Your task to perform on an android device: delete browsing data in the chrome app Image 0: 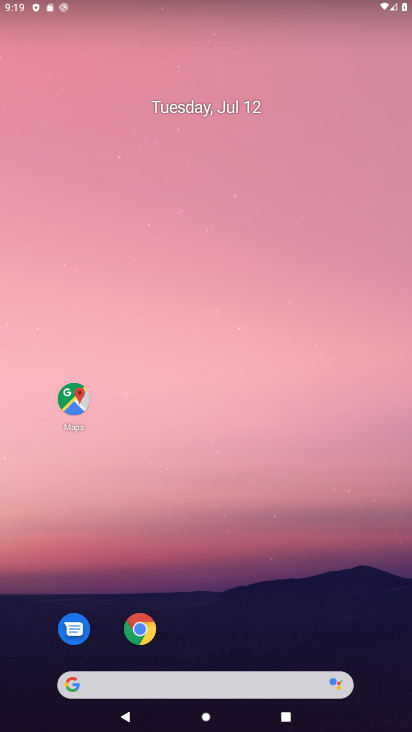
Step 0: click (142, 631)
Your task to perform on an android device: delete browsing data in the chrome app Image 1: 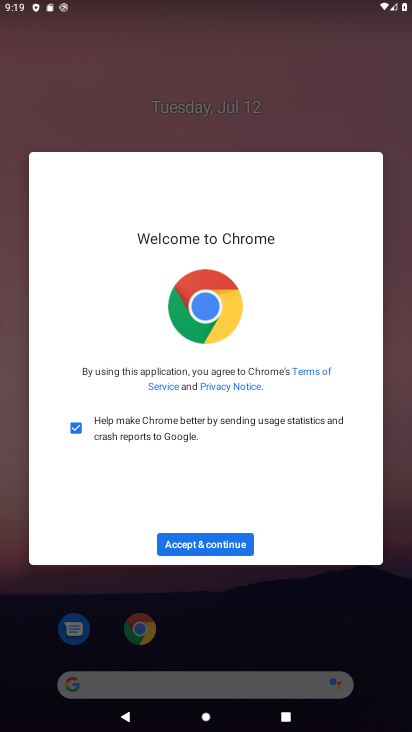
Step 1: click (242, 539)
Your task to perform on an android device: delete browsing data in the chrome app Image 2: 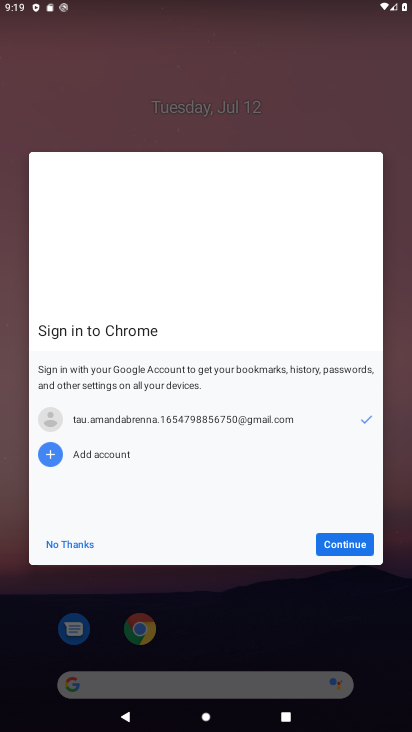
Step 2: click (319, 542)
Your task to perform on an android device: delete browsing data in the chrome app Image 3: 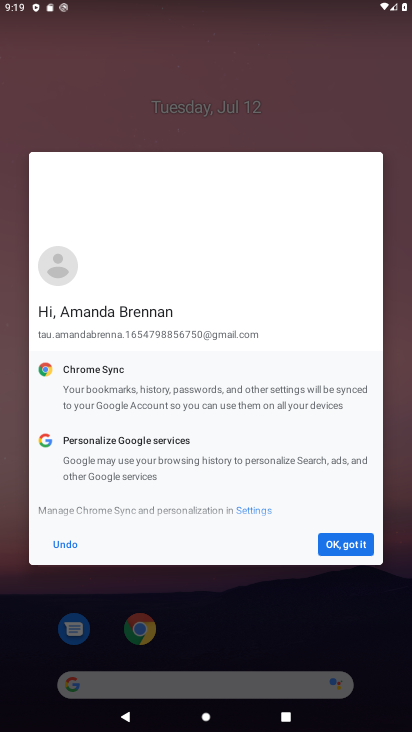
Step 3: click (343, 546)
Your task to perform on an android device: delete browsing data in the chrome app Image 4: 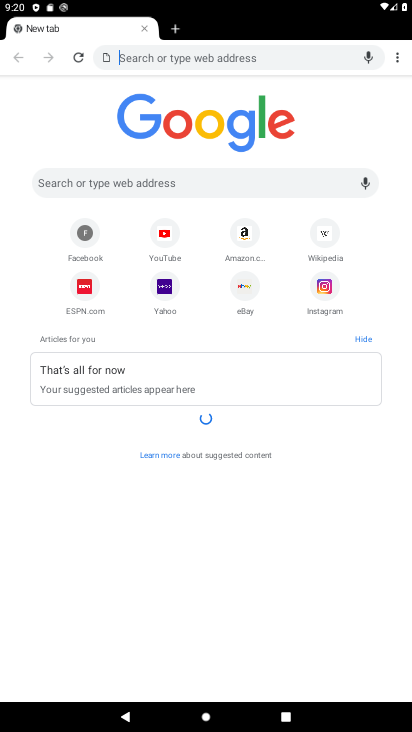
Step 4: drag from (398, 53) to (321, 255)
Your task to perform on an android device: delete browsing data in the chrome app Image 5: 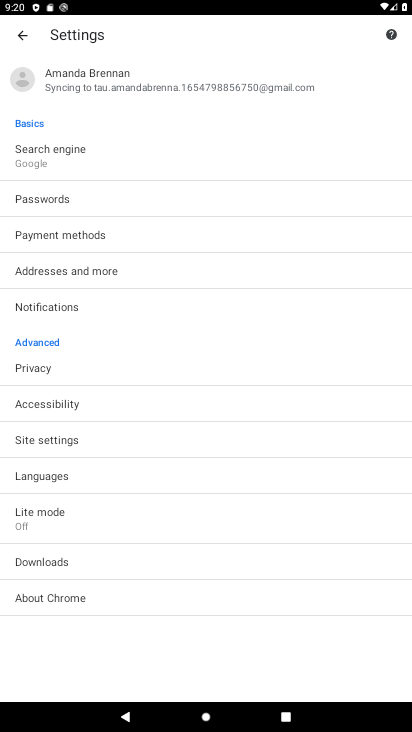
Step 5: click (56, 366)
Your task to perform on an android device: delete browsing data in the chrome app Image 6: 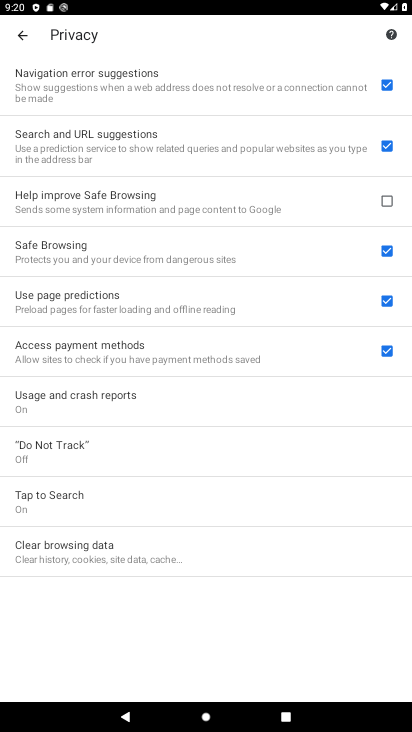
Step 6: click (138, 552)
Your task to perform on an android device: delete browsing data in the chrome app Image 7: 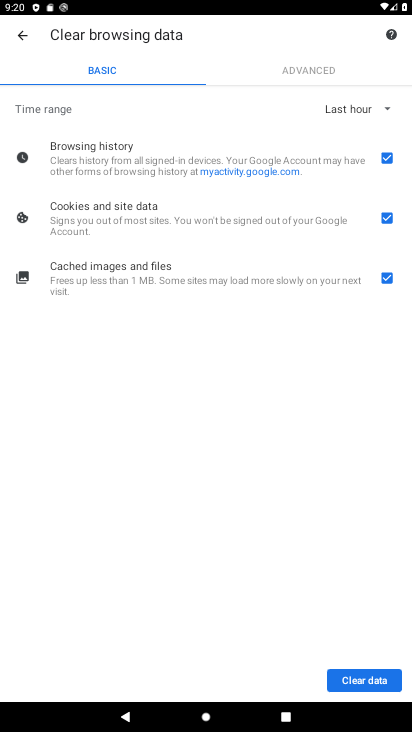
Step 7: click (362, 677)
Your task to perform on an android device: delete browsing data in the chrome app Image 8: 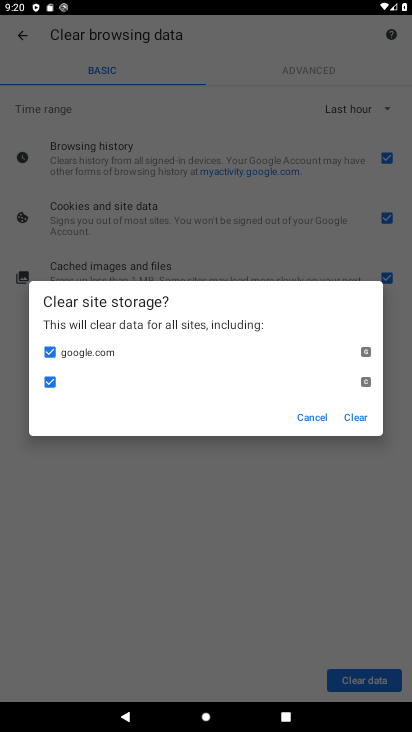
Step 8: click (358, 414)
Your task to perform on an android device: delete browsing data in the chrome app Image 9: 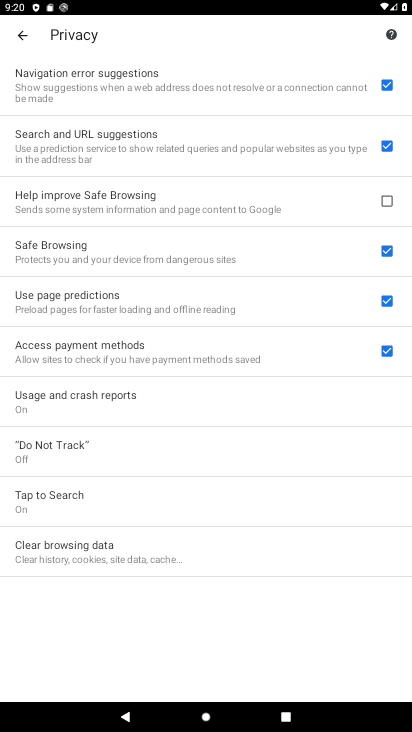
Step 9: task complete